Your task to perform on an android device: move an email to a new category in the gmail app Image 0: 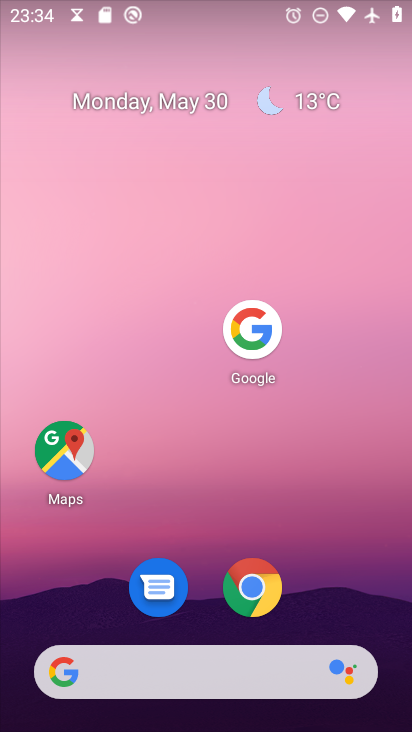
Step 0: press home button
Your task to perform on an android device: move an email to a new category in the gmail app Image 1: 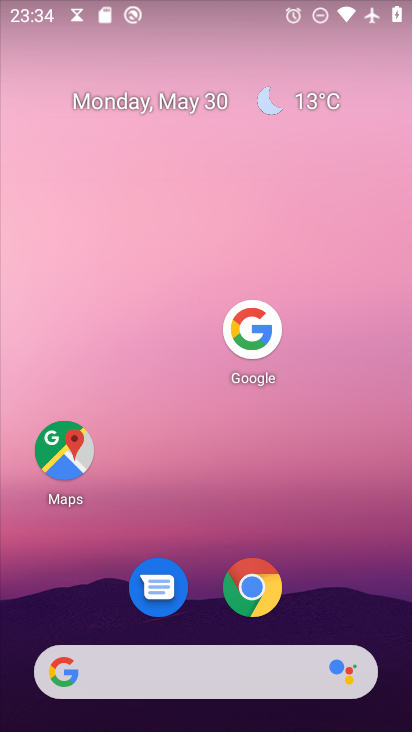
Step 1: drag from (199, 658) to (306, 315)
Your task to perform on an android device: move an email to a new category in the gmail app Image 2: 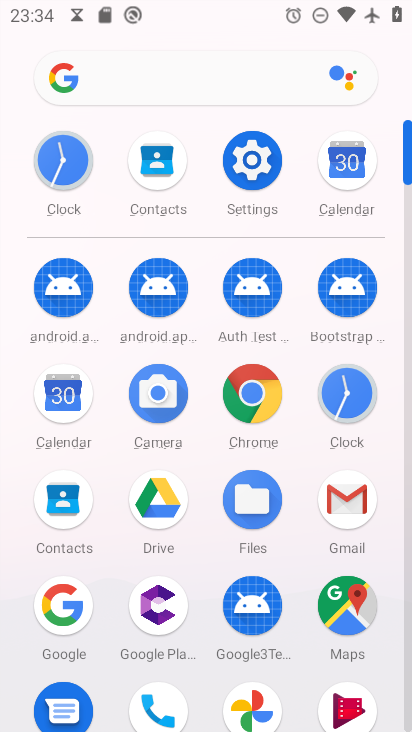
Step 2: click (348, 494)
Your task to perform on an android device: move an email to a new category in the gmail app Image 3: 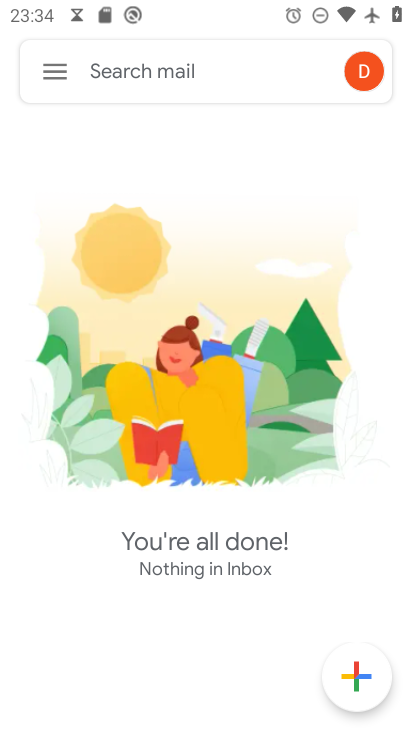
Step 3: task complete